Your task to perform on an android device: check out phone information Image 0: 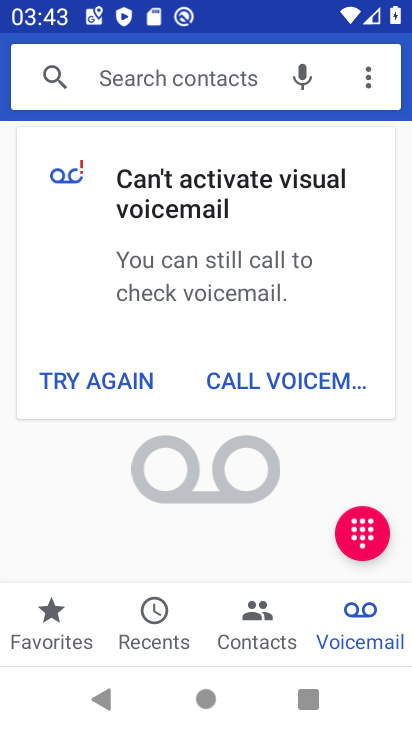
Step 0: press home button
Your task to perform on an android device: check out phone information Image 1: 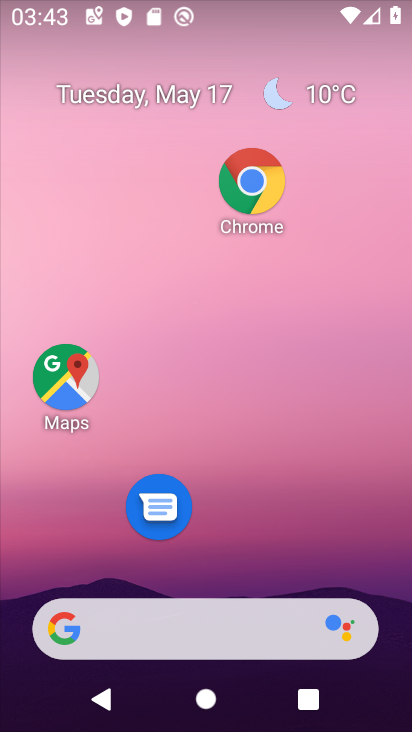
Step 1: drag from (387, 553) to (258, 107)
Your task to perform on an android device: check out phone information Image 2: 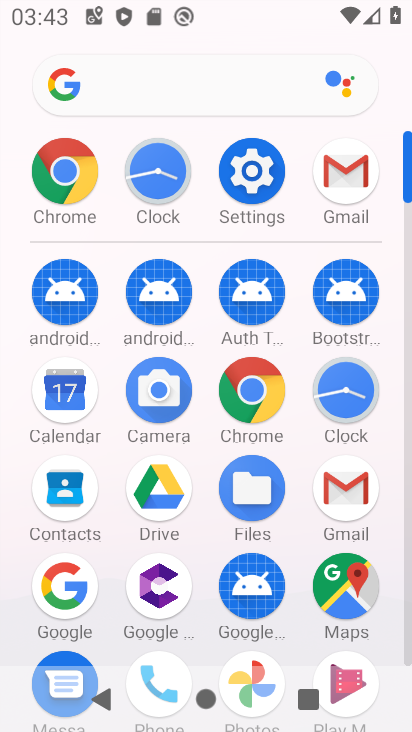
Step 2: click (262, 151)
Your task to perform on an android device: check out phone information Image 3: 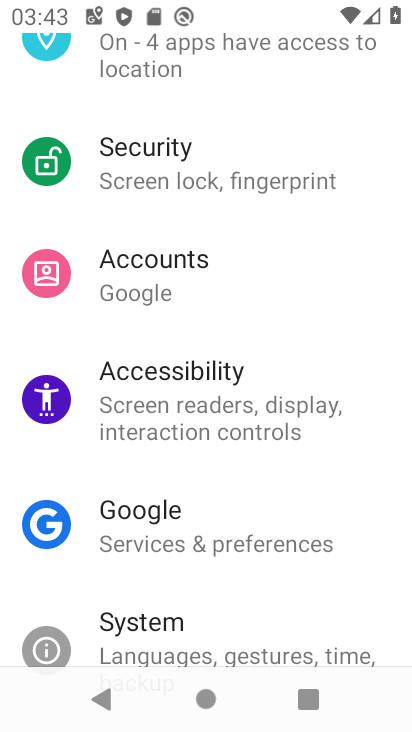
Step 3: drag from (172, 628) to (215, 208)
Your task to perform on an android device: check out phone information Image 4: 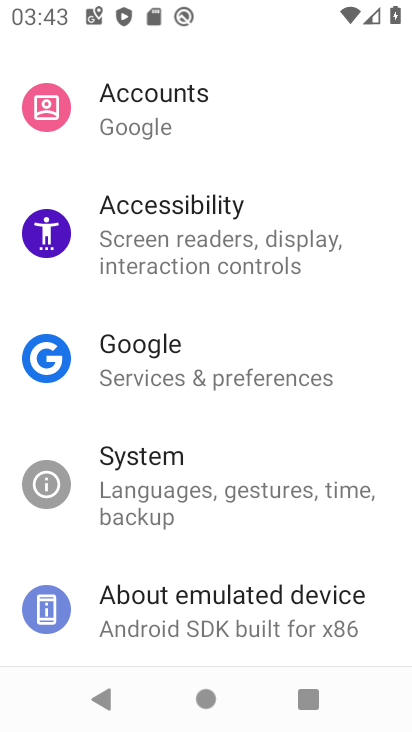
Step 4: click (252, 593)
Your task to perform on an android device: check out phone information Image 5: 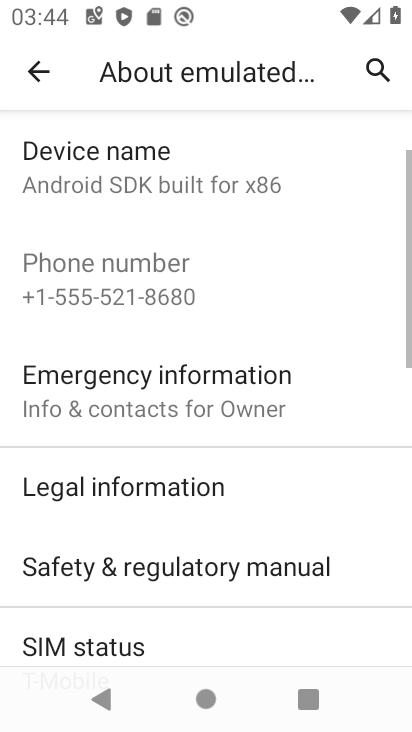
Step 5: task complete